Your task to perform on an android device: turn off improve location accuracy Image 0: 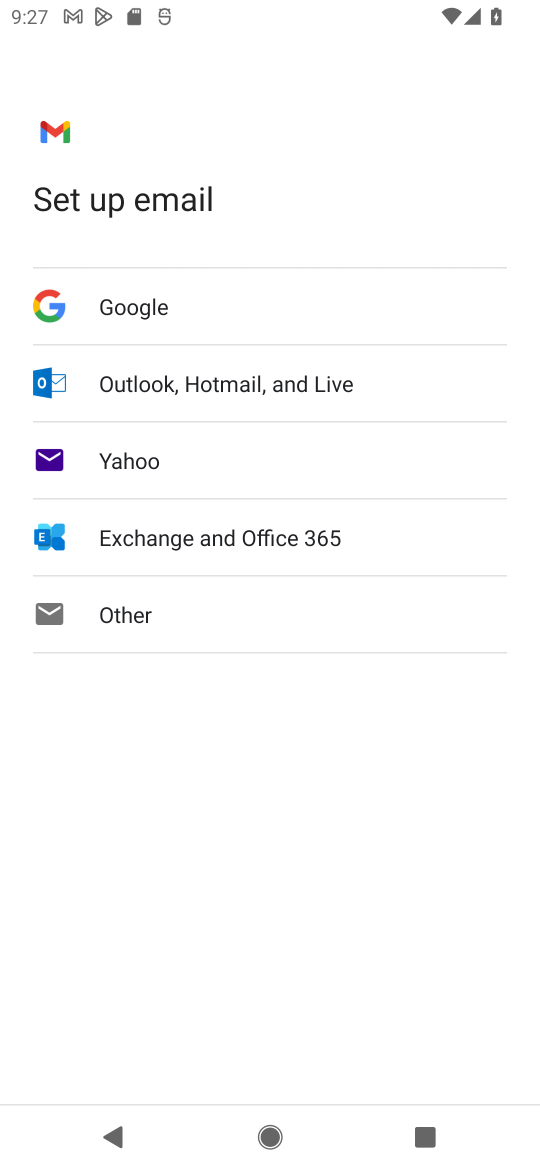
Step 0: press home button
Your task to perform on an android device: turn off improve location accuracy Image 1: 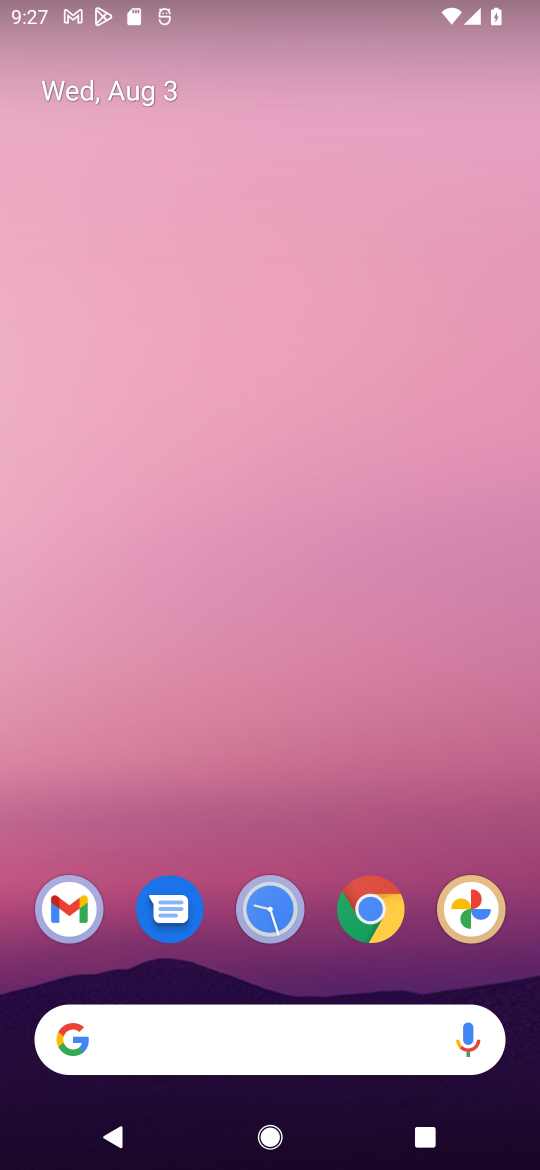
Step 1: drag from (424, 792) to (538, 617)
Your task to perform on an android device: turn off improve location accuracy Image 2: 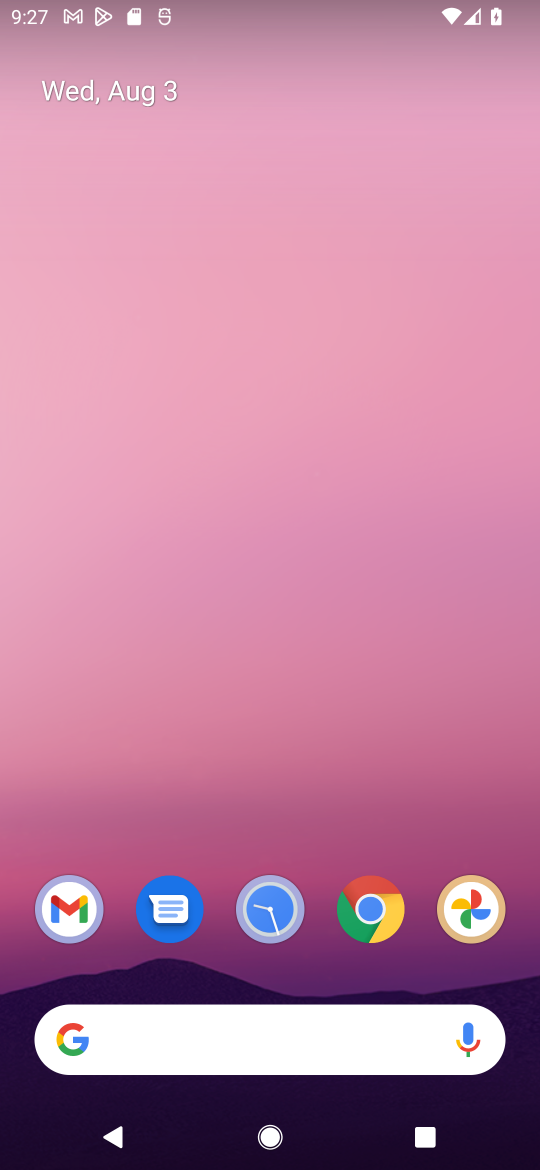
Step 2: drag from (336, 843) to (337, 405)
Your task to perform on an android device: turn off improve location accuracy Image 3: 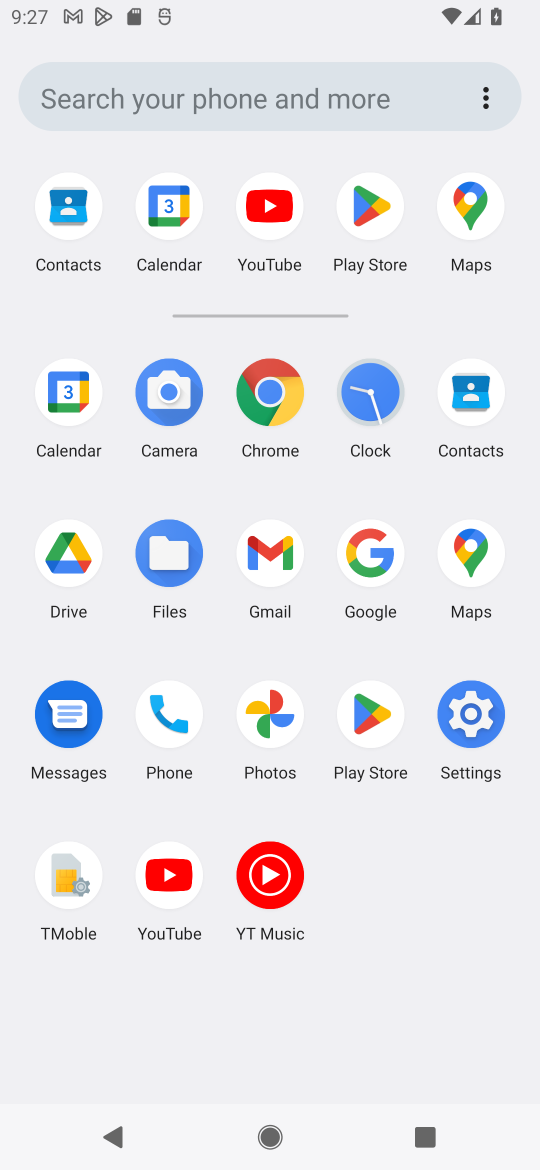
Step 3: click (482, 726)
Your task to perform on an android device: turn off improve location accuracy Image 4: 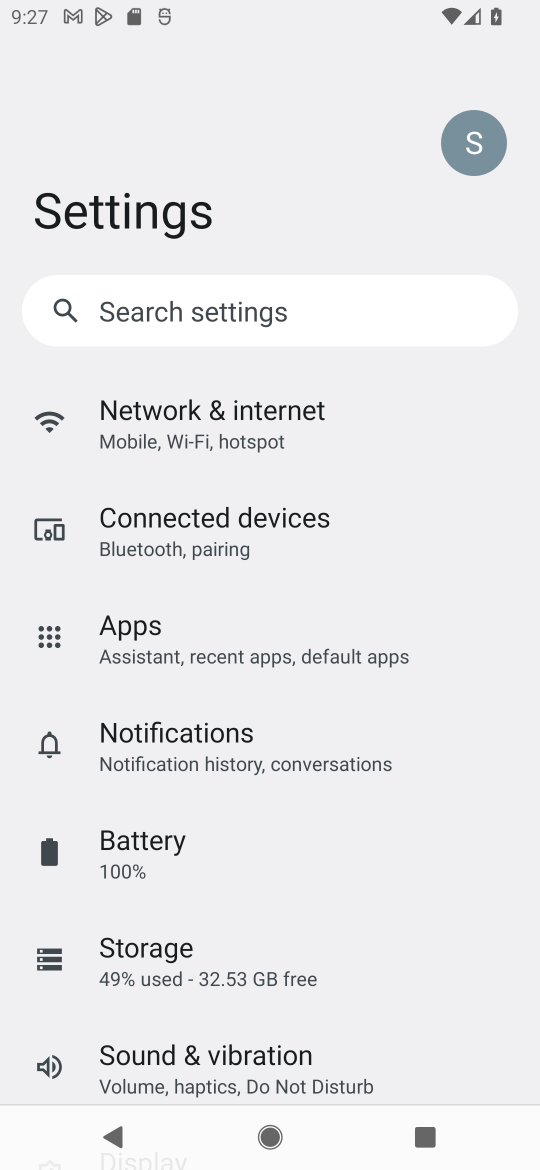
Step 4: drag from (429, 922) to (459, 736)
Your task to perform on an android device: turn off improve location accuracy Image 5: 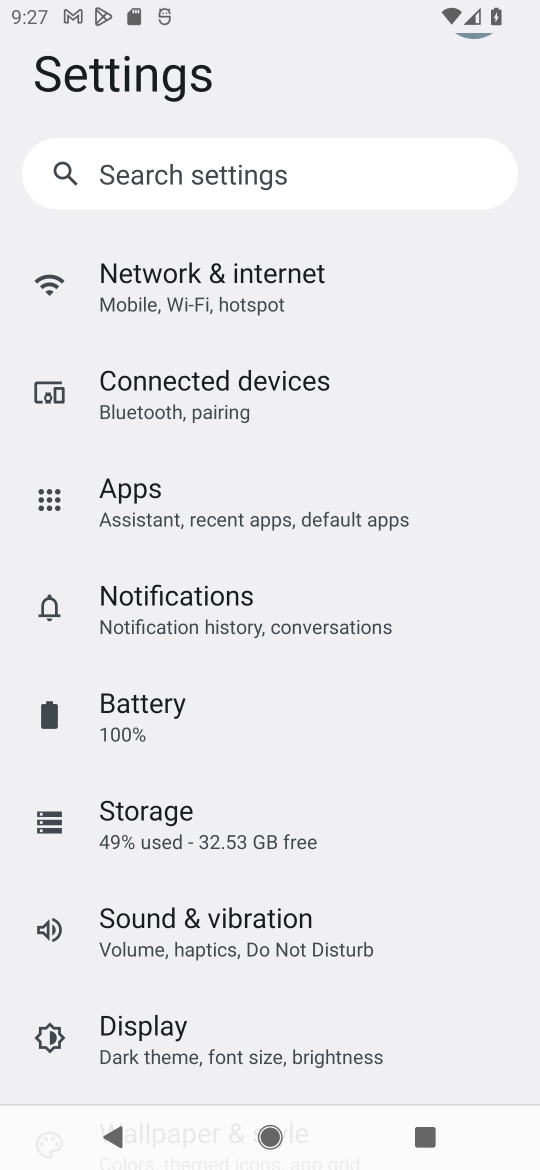
Step 5: drag from (447, 819) to (470, 570)
Your task to perform on an android device: turn off improve location accuracy Image 6: 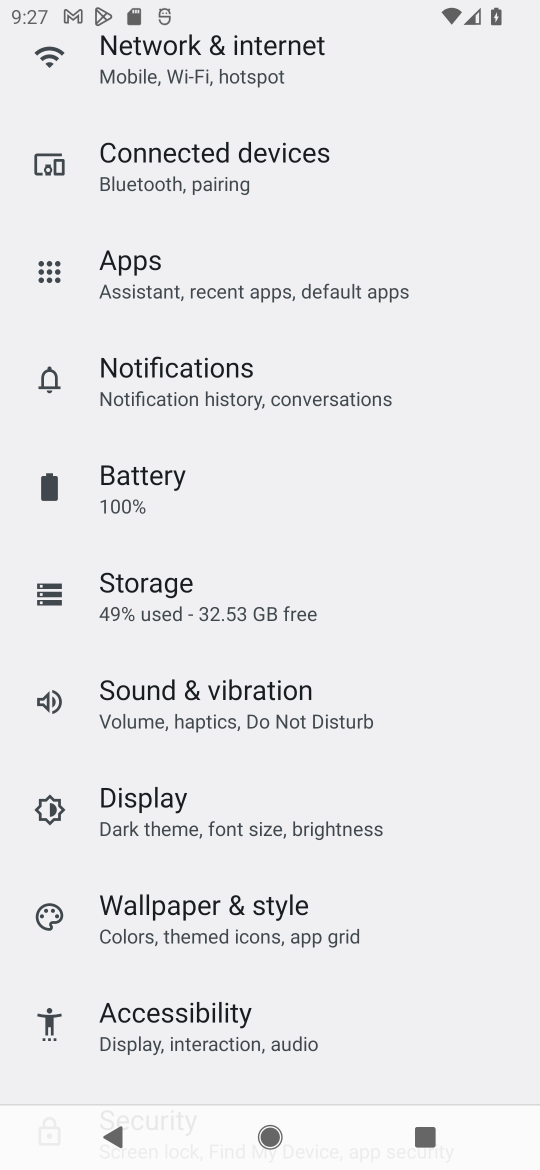
Step 6: drag from (458, 850) to (474, 570)
Your task to perform on an android device: turn off improve location accuracy Image 7: 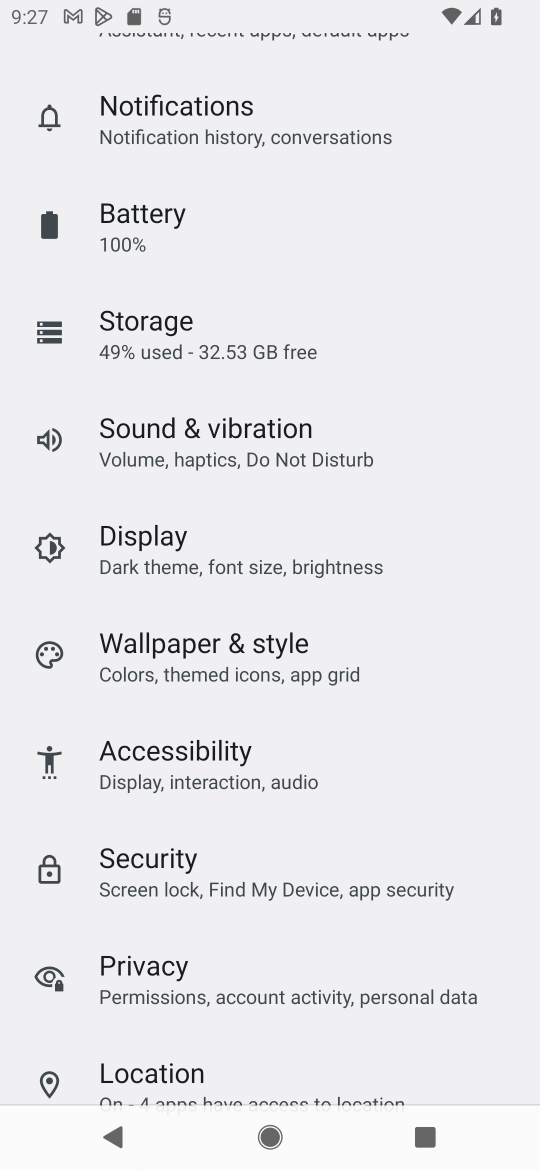
Step 7: drag from (460, 819) to (455, 611)
Your task to perform on an android device: turn off improve location accuracy Image 8: 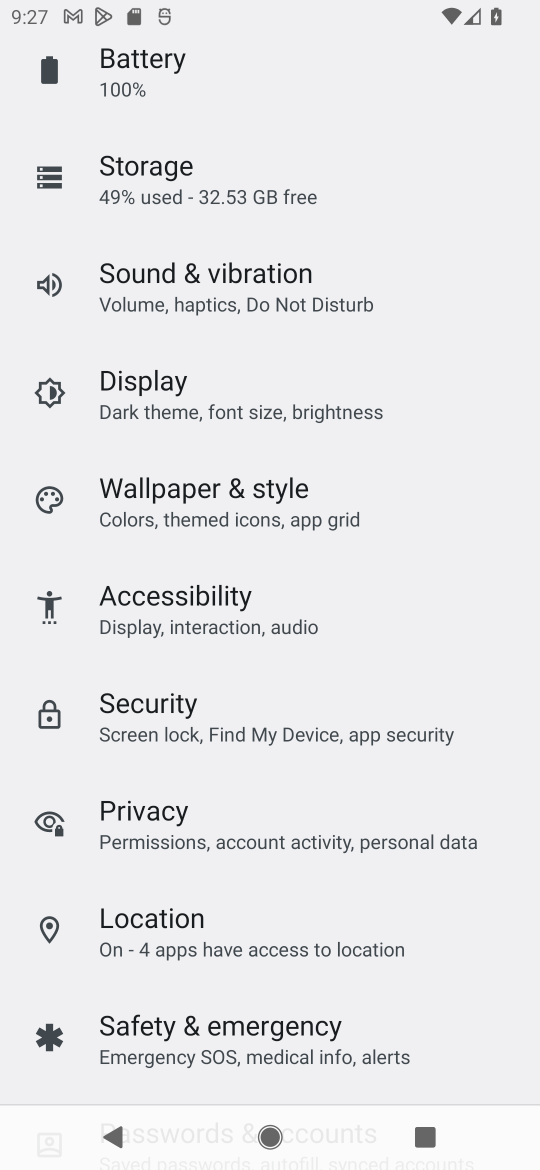
Step 8: drag from (446, 914) to (450, 706)
Your task to perform on an android device: turn off improve location accuracy Image 9: 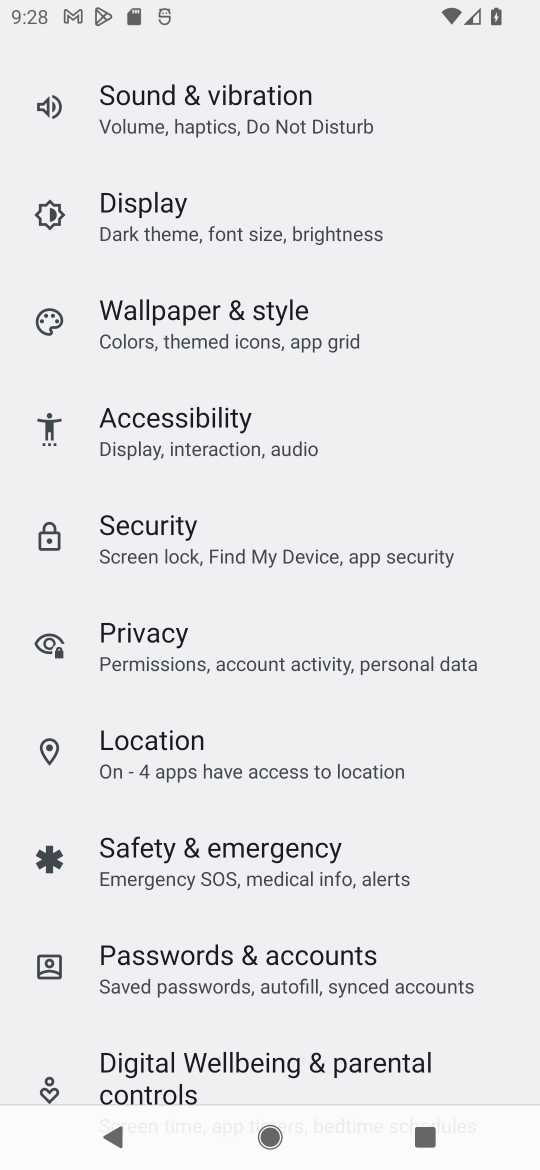
Step 9: click (450, 750)
Your task to perform on an android device: turn off improve location accuracy Image 10: 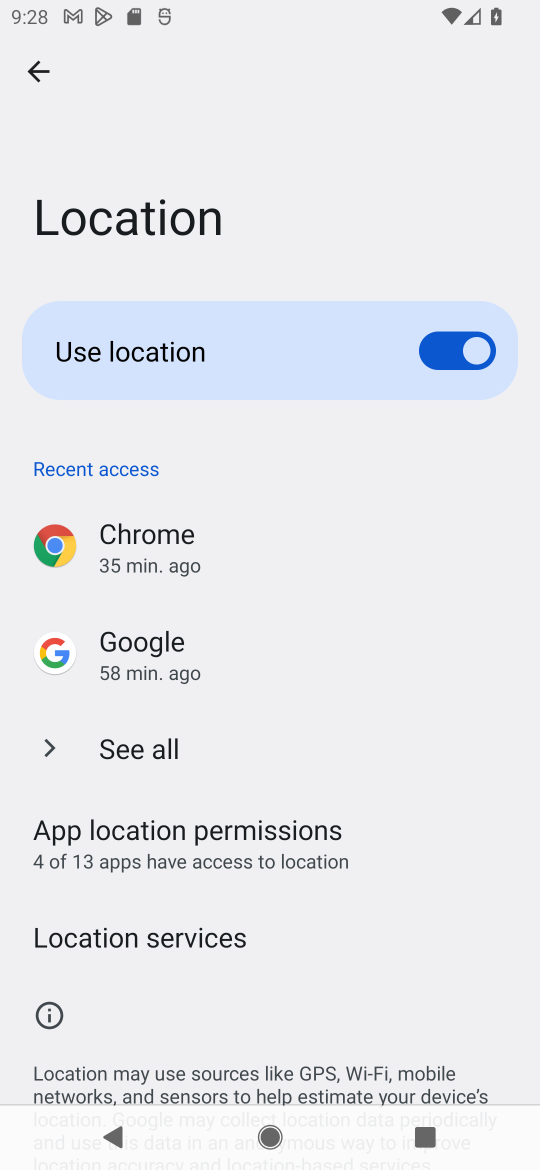
Step 10: drag from (431, 873) to (429, 659)
Your task to perform on an android device: turn off improve location accuracy Image 11: 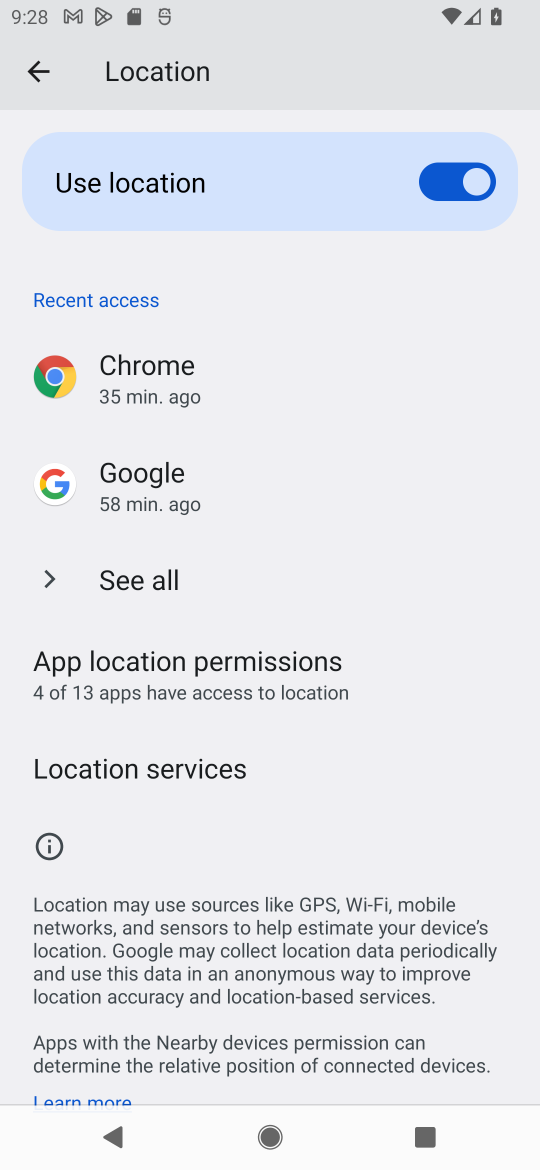
Step 11: drag from (449, 960) to (449, 811)
Your task to perform on an android device: turn off improve location accuracy Image 12: 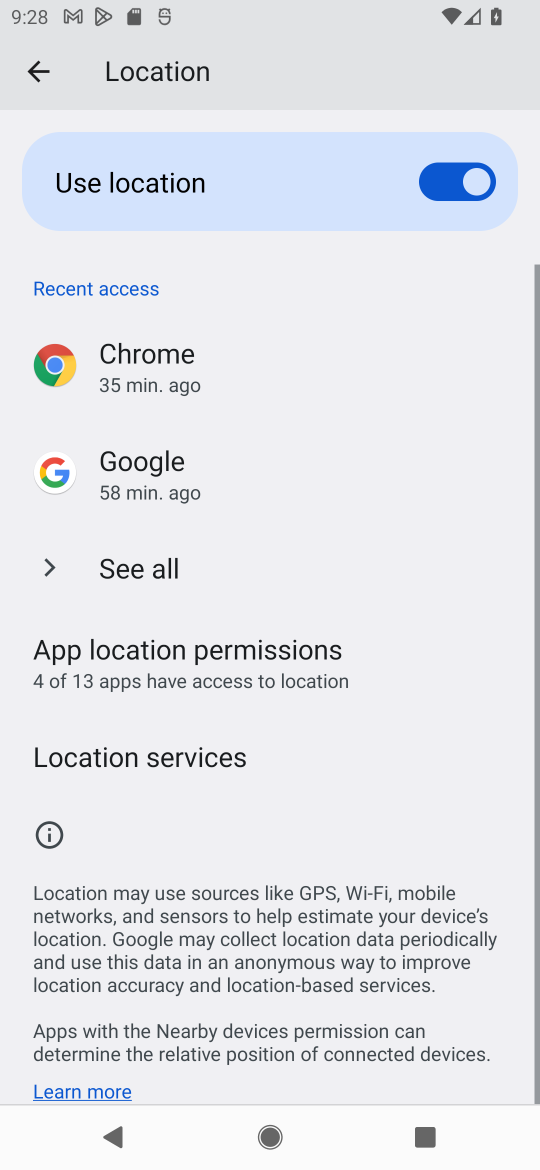
Step 12: click (230, 746)
Your task to perform on an android device: turn off improve location accuracy Image 13: 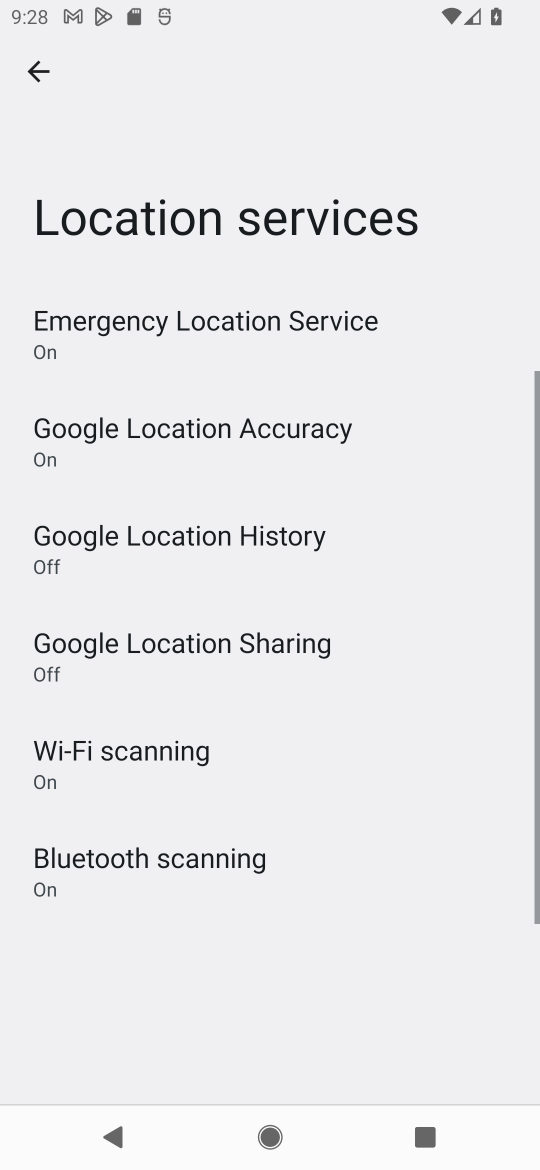
Step 13: drag from (374, 821) to (393, 694)
Your task to perform on an android device: turn off improve location accuracy Image 14: 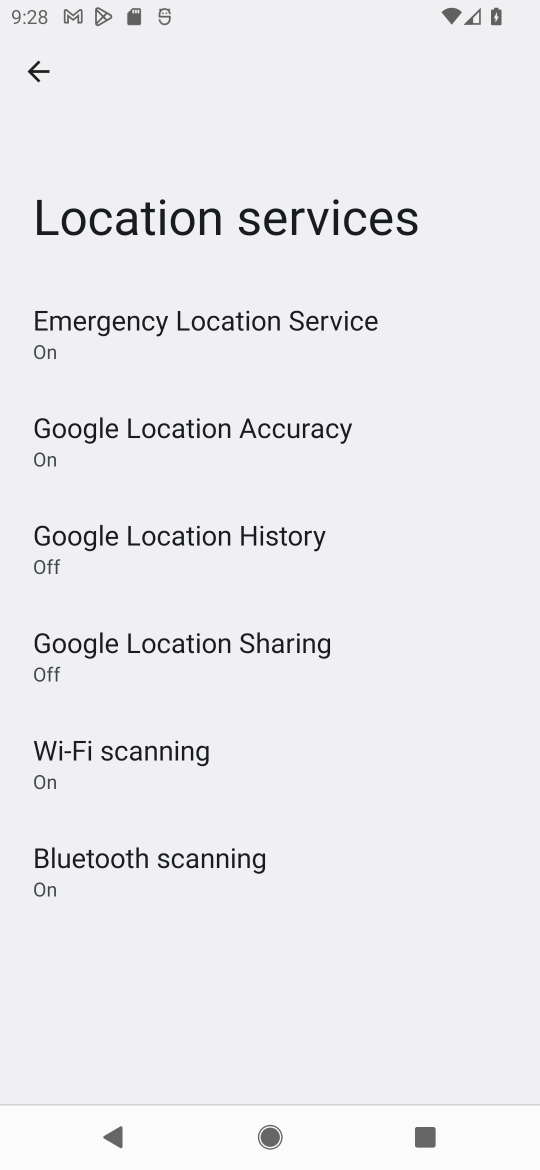
Step 14: click (354, 431)
Your task to perform on an android device: turn off improve location accuracy Image 15: 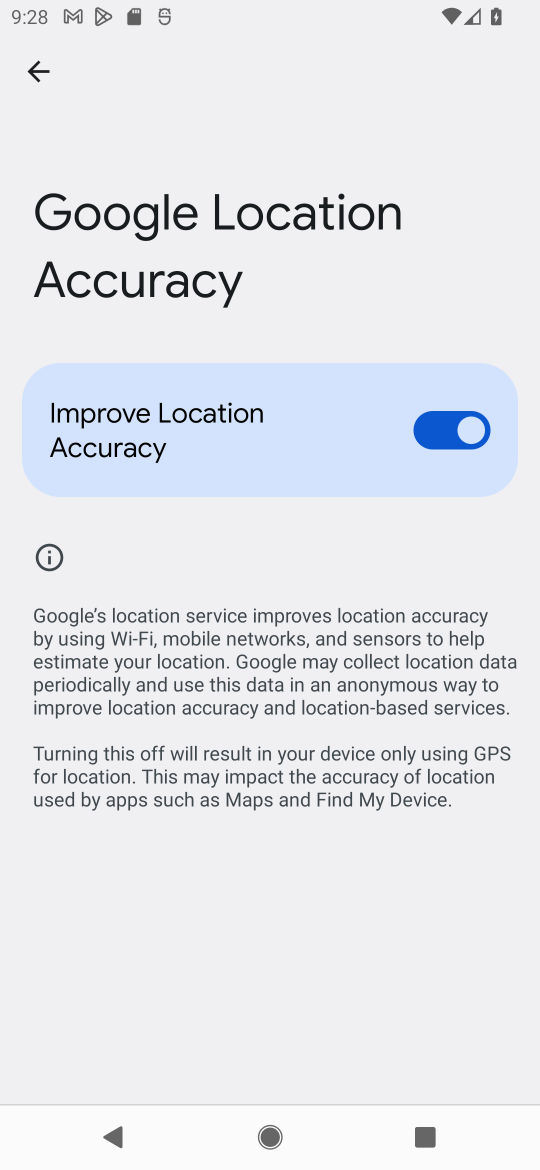
Step 15: click (437, 430)
Your task to perform on an android device: turn off improve location accuracy Image 16: 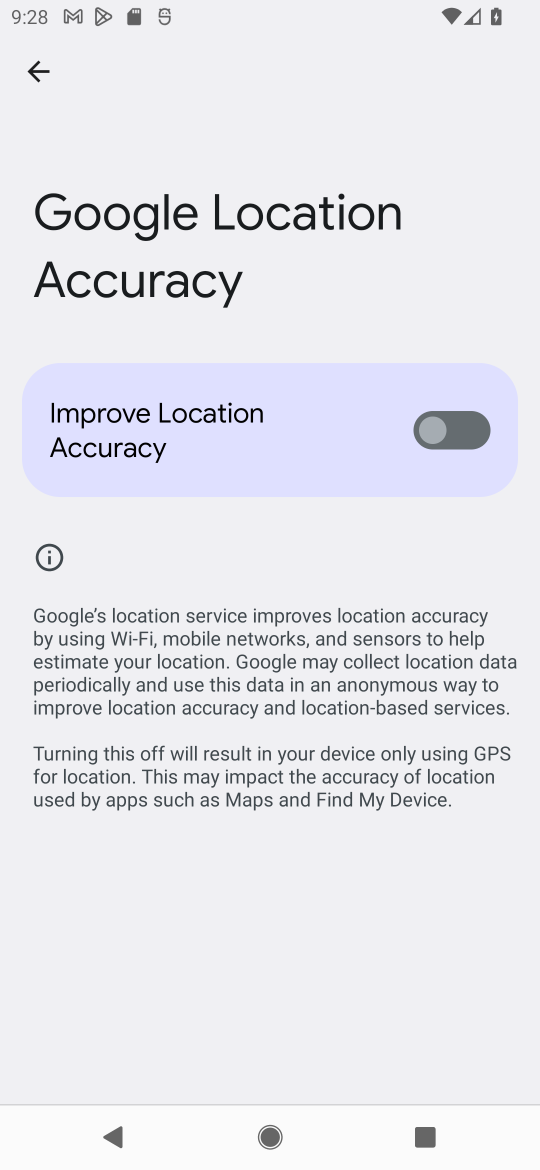
Step 16: task complete